Your task to perform on an android device: Search for vegetarian restaurants on Maps Image 0: 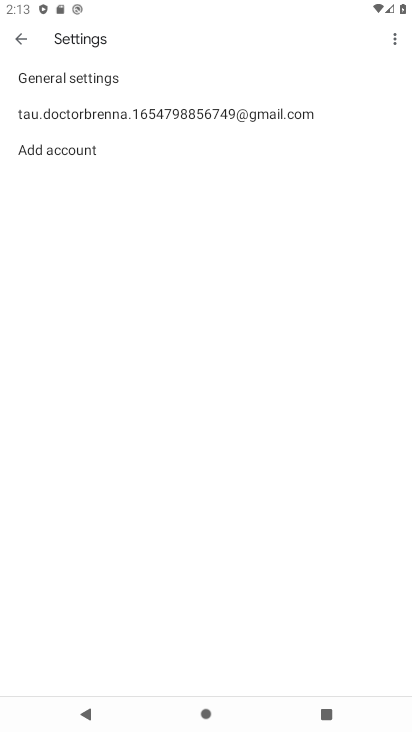
Step 0: press home button
Your task to perform on an android device: Search for vegetarian restaurants on Maps Image 1: 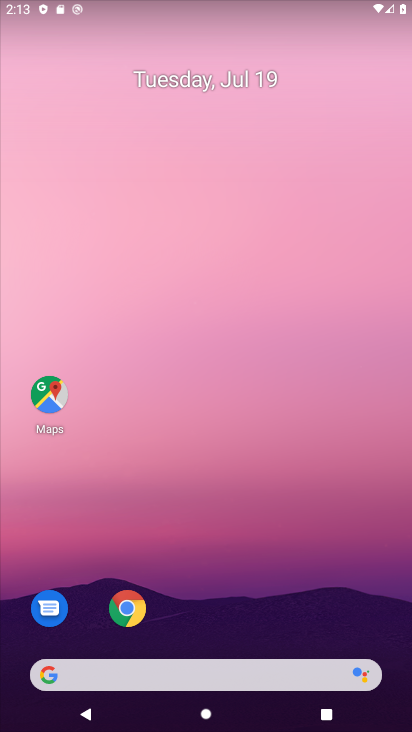
Step 1: click (51, 398)
Your task to perform on an android device: Search for vegetarian restaurants on Maps Image 2: 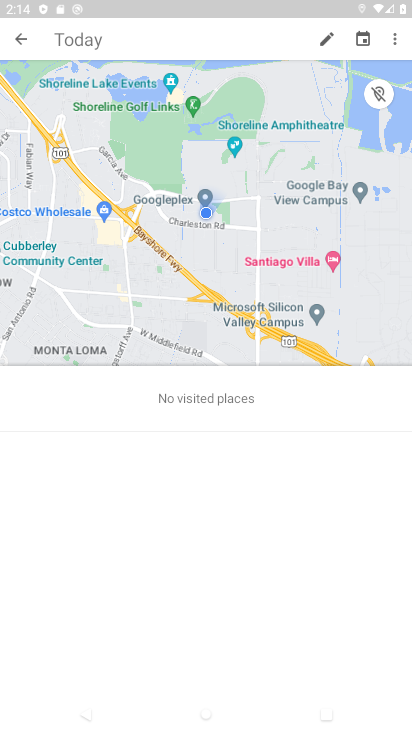
Step 2: click (26, 40)
Your task to perform on an android device: Search for vegetarian restaurants on Maps Image 3: 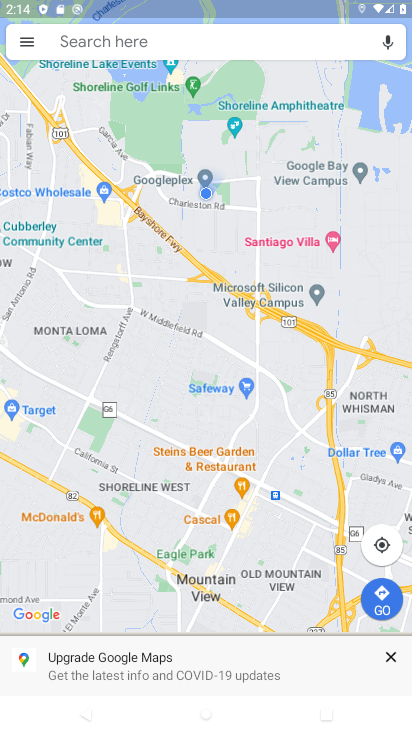
Step 3: click (175, 47)
Your task to perform on an android device: Search for vegetarian restaurants on Maps Image 4: 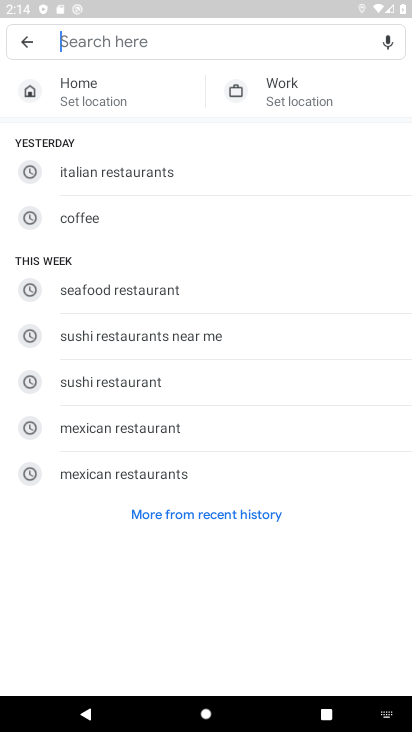
Step 4: type "vegetarian restaurant"
Your task to perform on an android device: Search for vegetarian restaurants on Maps Image 5: 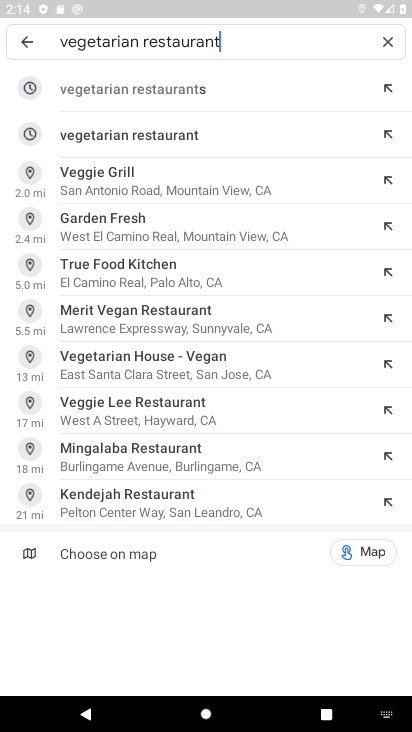
Step 5: click (173, 132)
Your task to perform on an android device: Search for vegetarian restaurants on Maps Image 6: 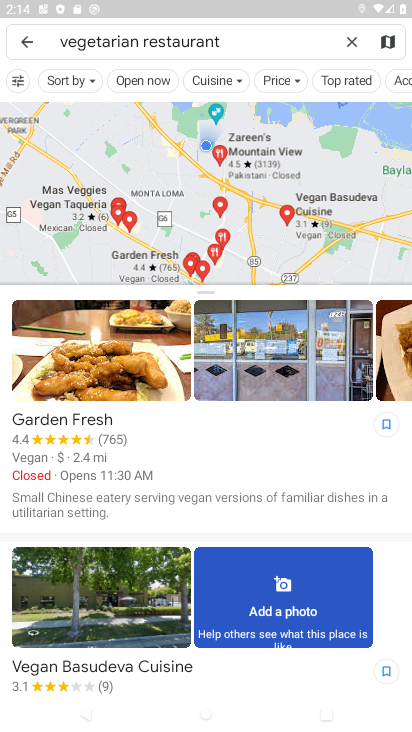
Step 6: task complete